Your task to perform on an android device: turn on sleep mode Image 0: 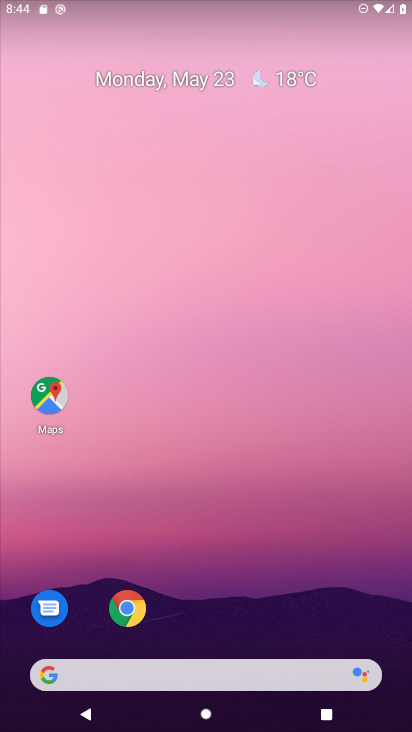
Step 0: drag from (218, 725) to (153, 75)
Your task to perform on an android device: turn on sleep mode Image 1: 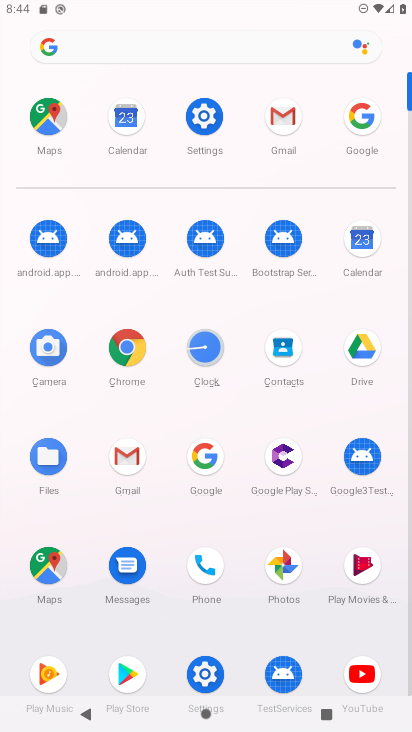
Step 1: click (201, 111)
Your task to perform on an android device: turn on sleep mode Image 2: 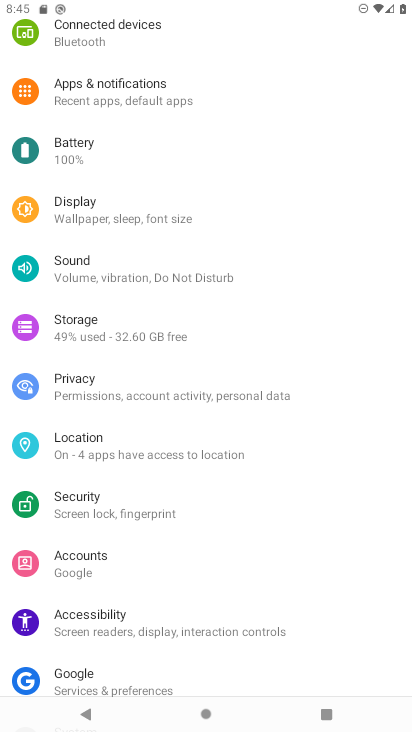
Step 2: task complete